Your task to perform on an android device: open sync settings in chrome Image 0: 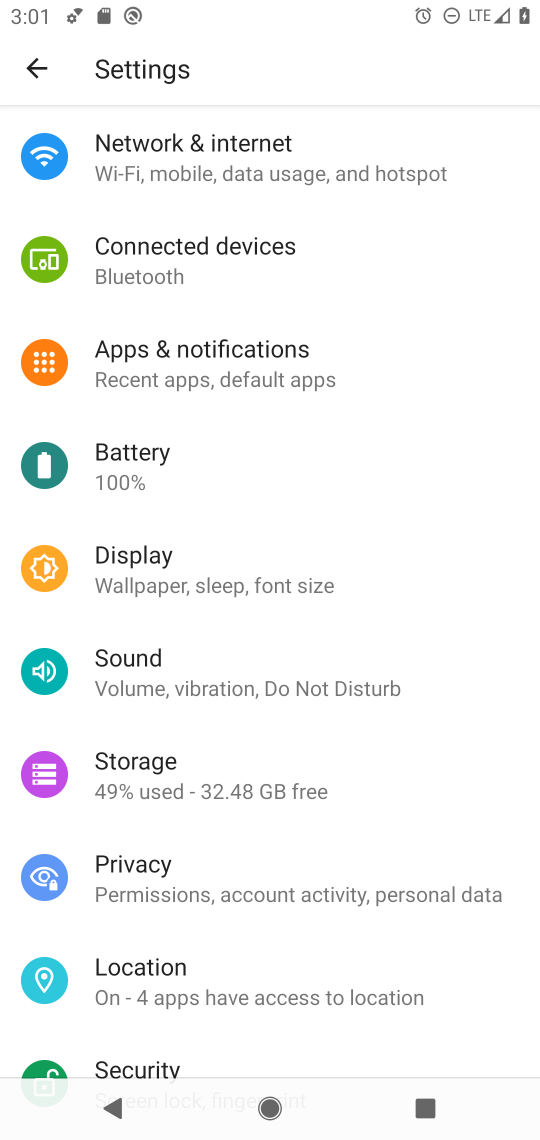
Step 0: press home button
Your task to perform on an android device: open sync settings in chrome Image 1: 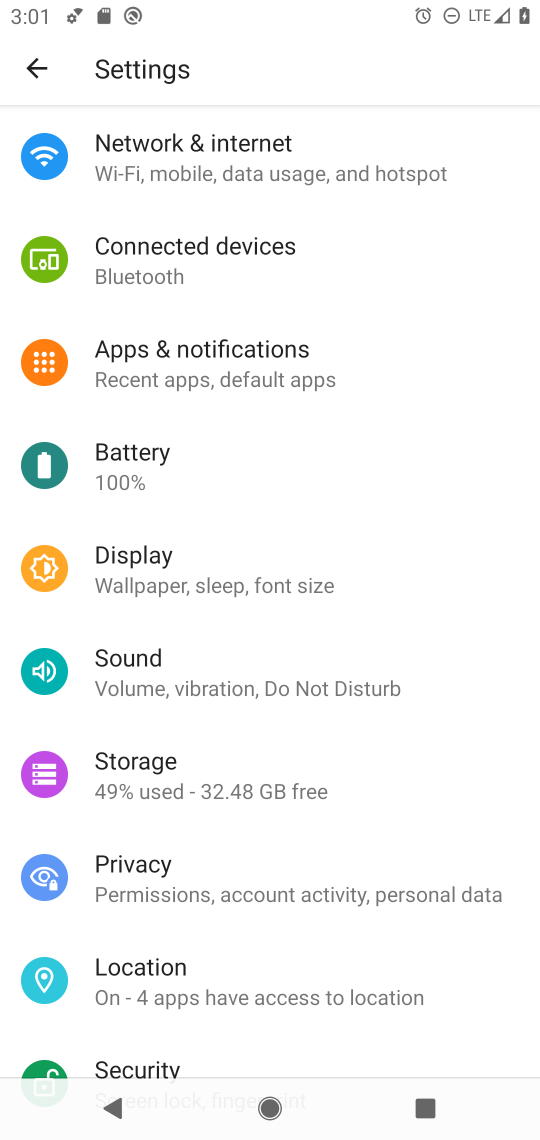
Step 1: press home button
Your task to perform on an android device: open sync settings in chrome Image 2: 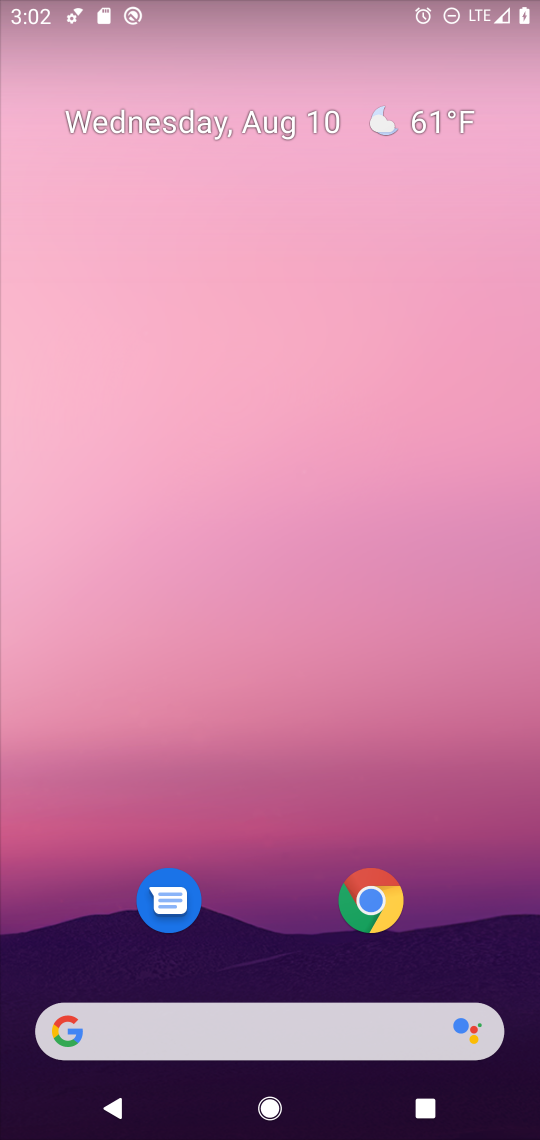
Step 2: click (376, 900)
Your task to perform on an android device: open sync settings in chrome Image 3: 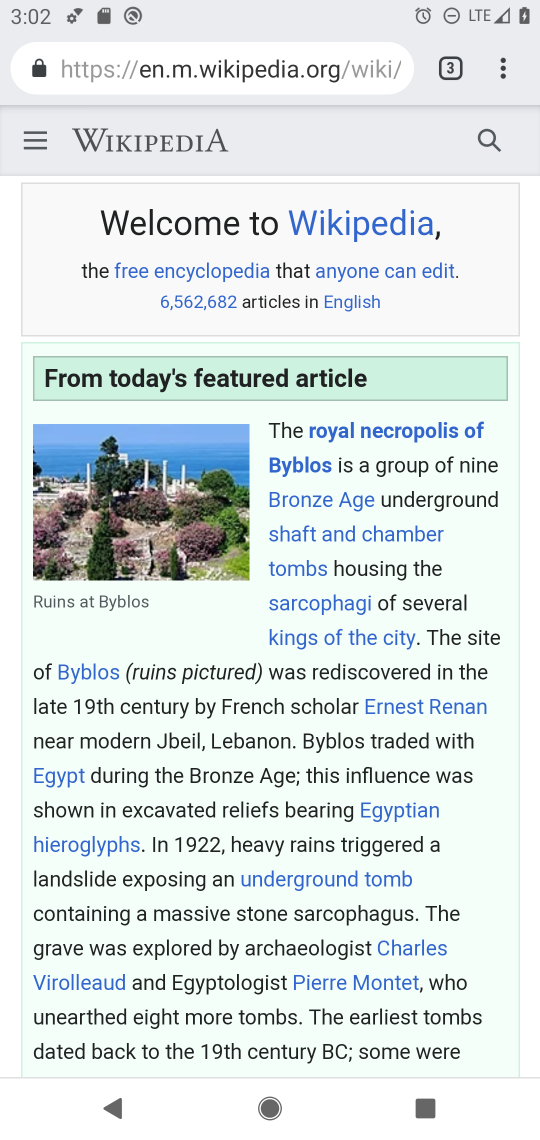
Step 3: click (506, 54)
Your task to perform on an android device: open sync settings in chrome Image 4: 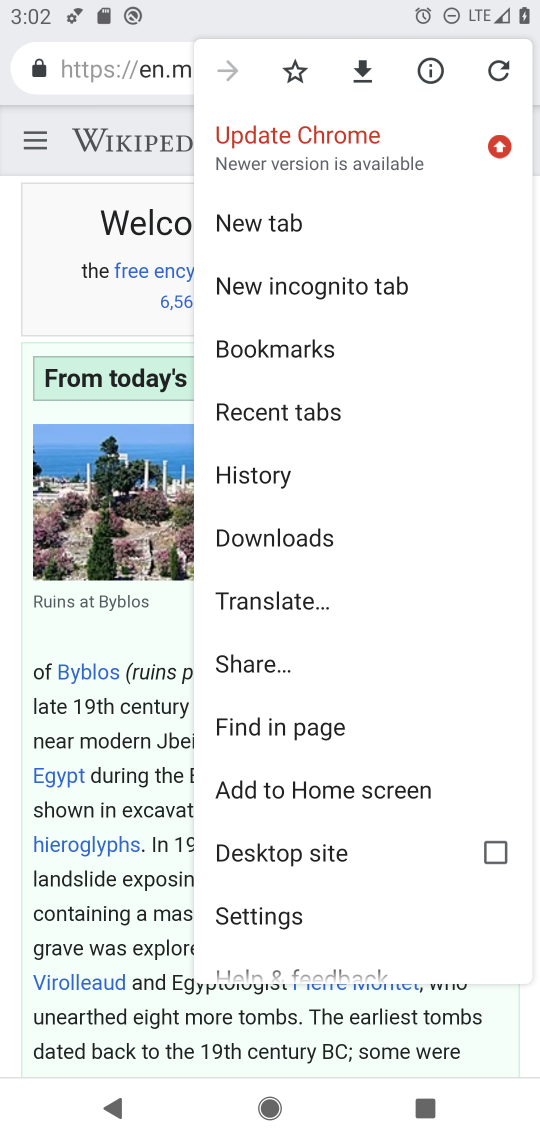
Step 4: click (283, 922)
Your task to perform on an android device: open sync settings in chrome Image 5: 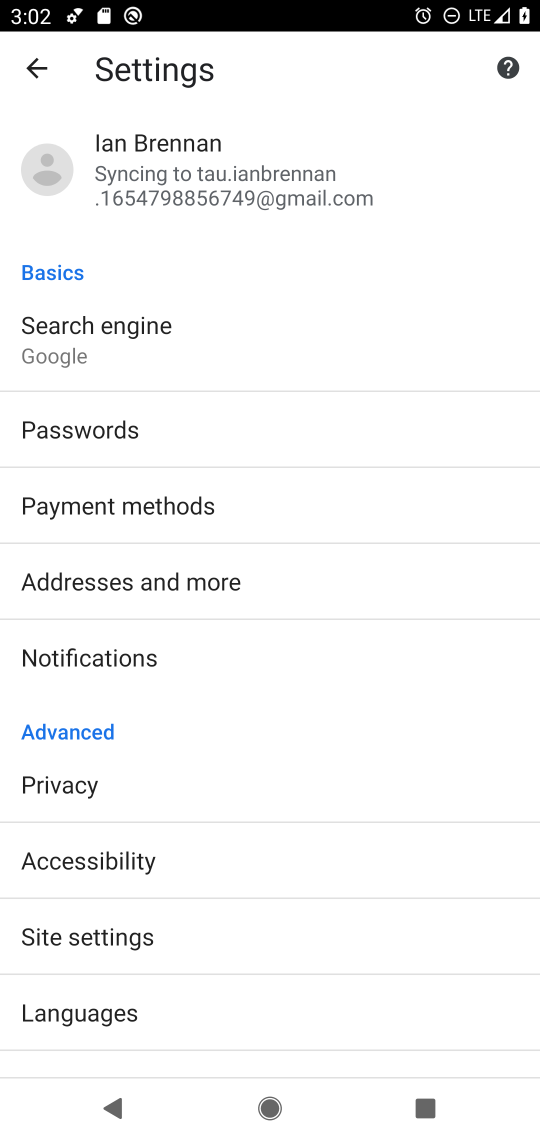
Step 5: click (238, 174)
Your task to perform on an android device: open sync settings in chrome Image 6: 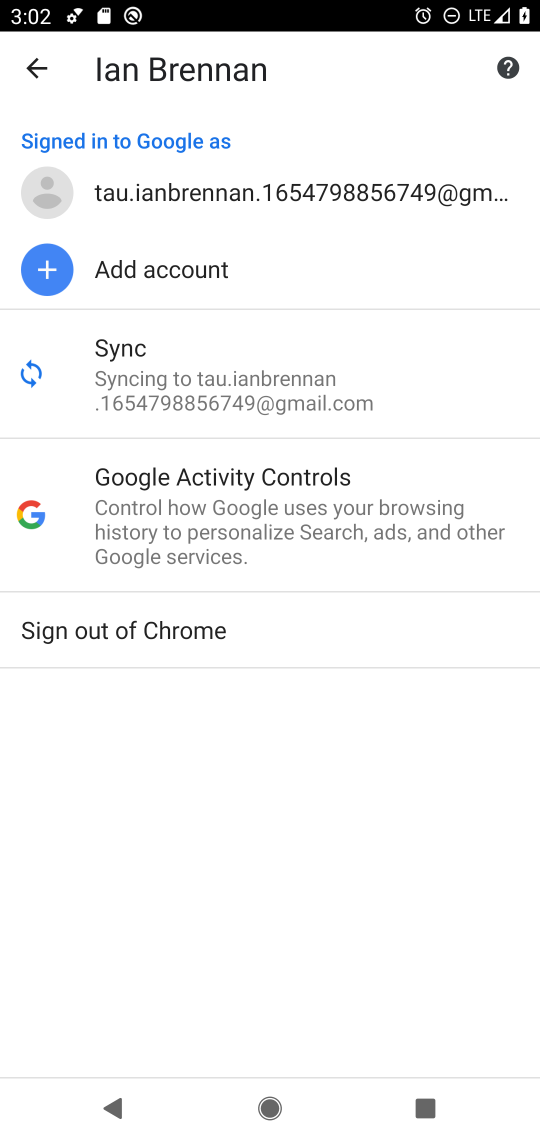
Step 6: click (238, 379)
Your task to perform on an android device: open sync settings in chrome Image 7: 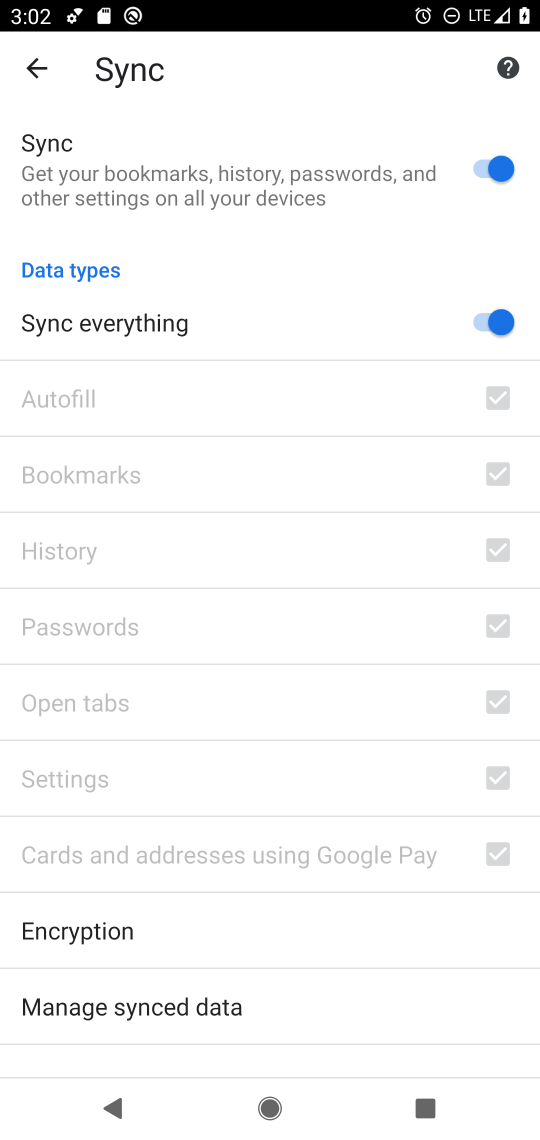
Step 7: task complete